Your task to perform on an android device: Show the shopping cart on newegg. Add macbook pro 15 inch to the cart on newegg Image 0: 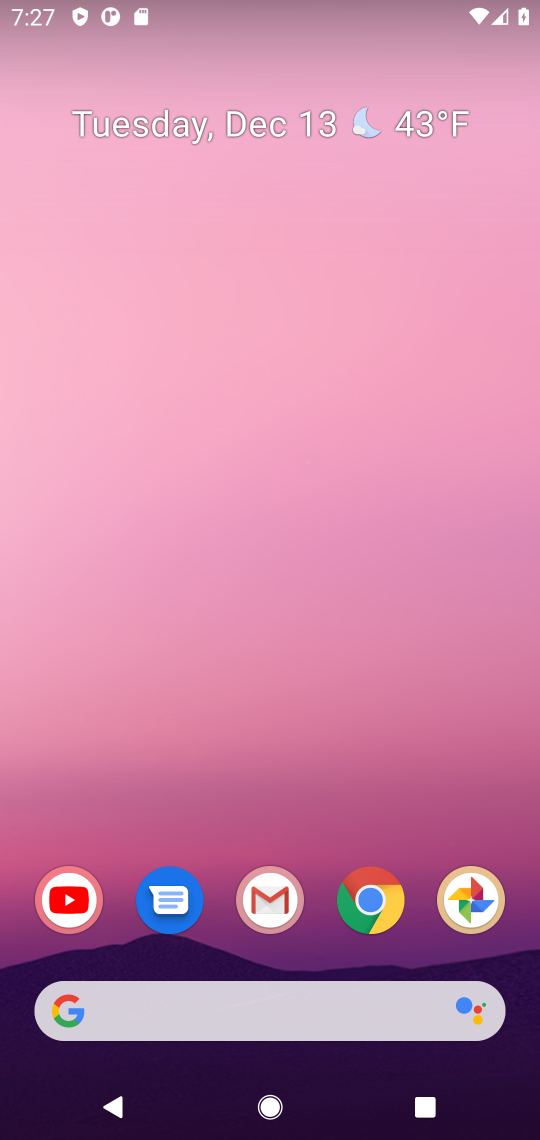
Step 0: click (367, 895)
Your task to perform on an android device: Show the shopping cart on newegg. Add macbook pro 15 inch to the cart on newegg Image 1: 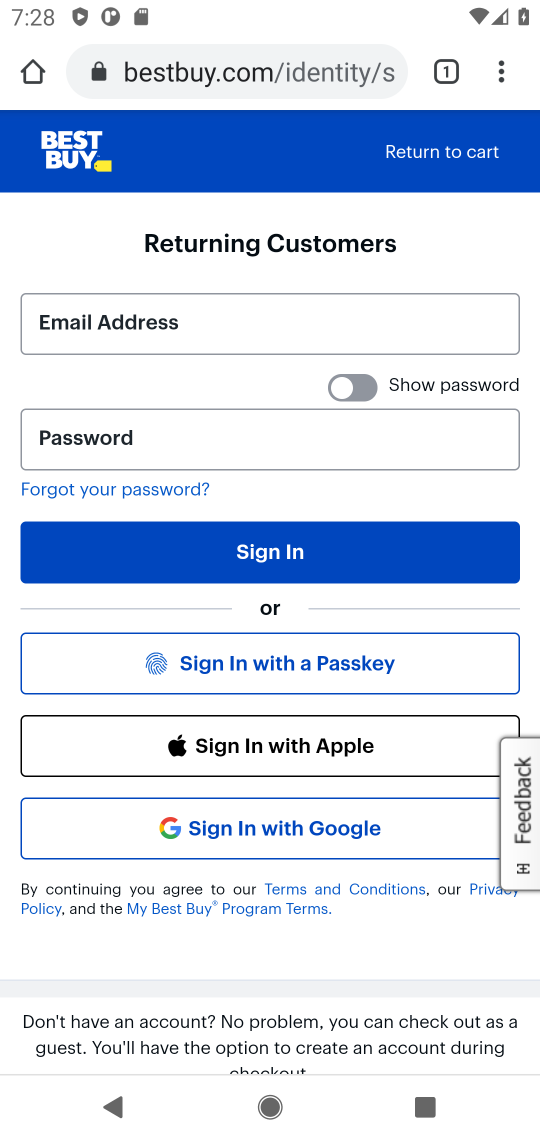
Step 1: click (298, 69)
Your task to perform on an android device: Show the shopping cart on newegg. Add macbook pro 15 inch to the cart on newegg Image 2: 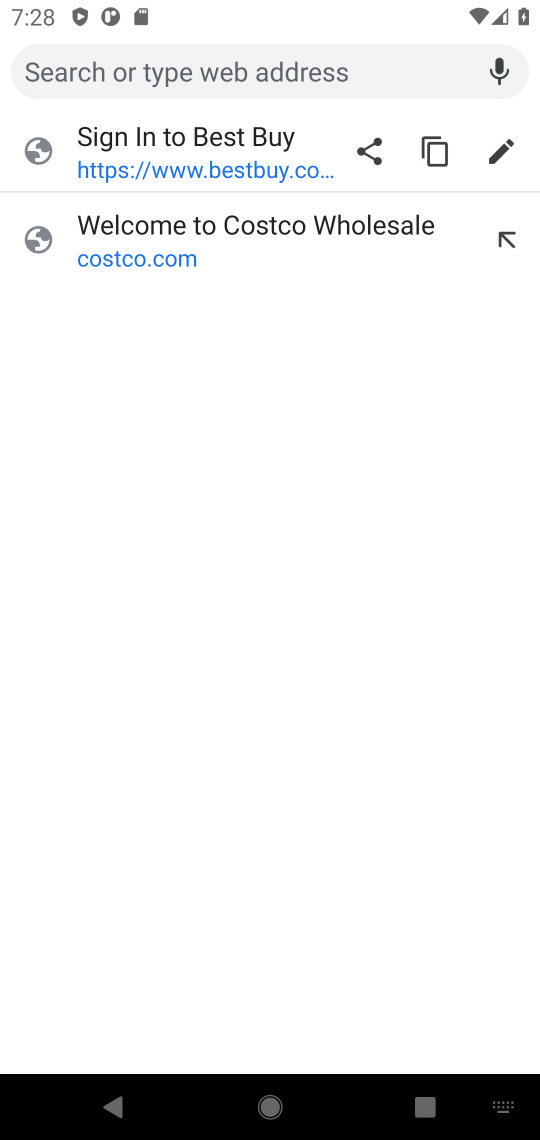
Step 2: type "newegg"
Your task to perform on an android device: Show the shopping cart on newegg. Add macbook pro 15 inch to the cart on newegg Image 3: 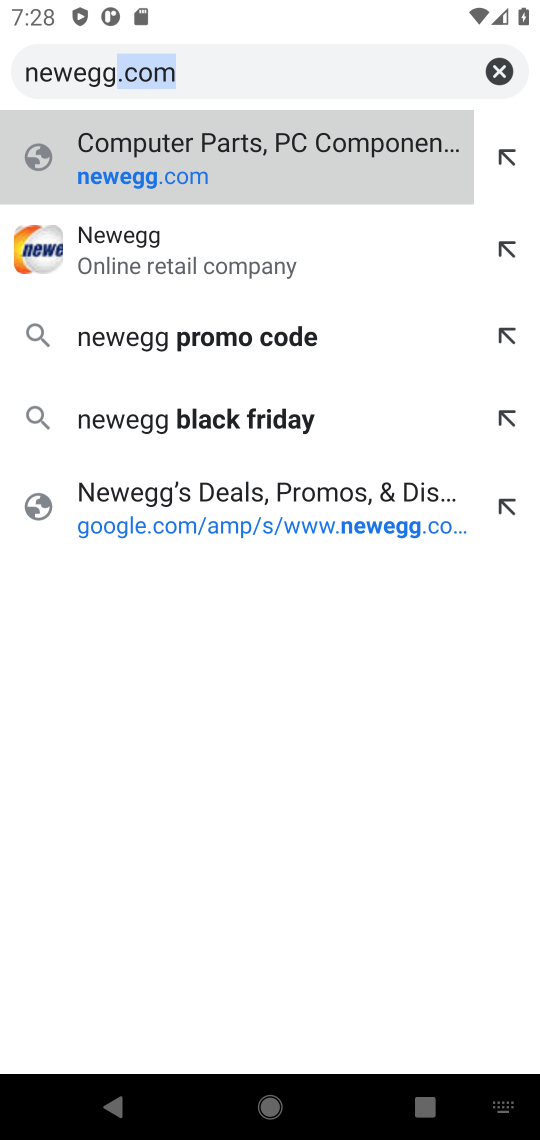
Step 3: click (222, 166)
Your task to perform on an android device: Show the shopping cart on newegg. Add macbook pro 15 inch to the cart on newegg Image 4: 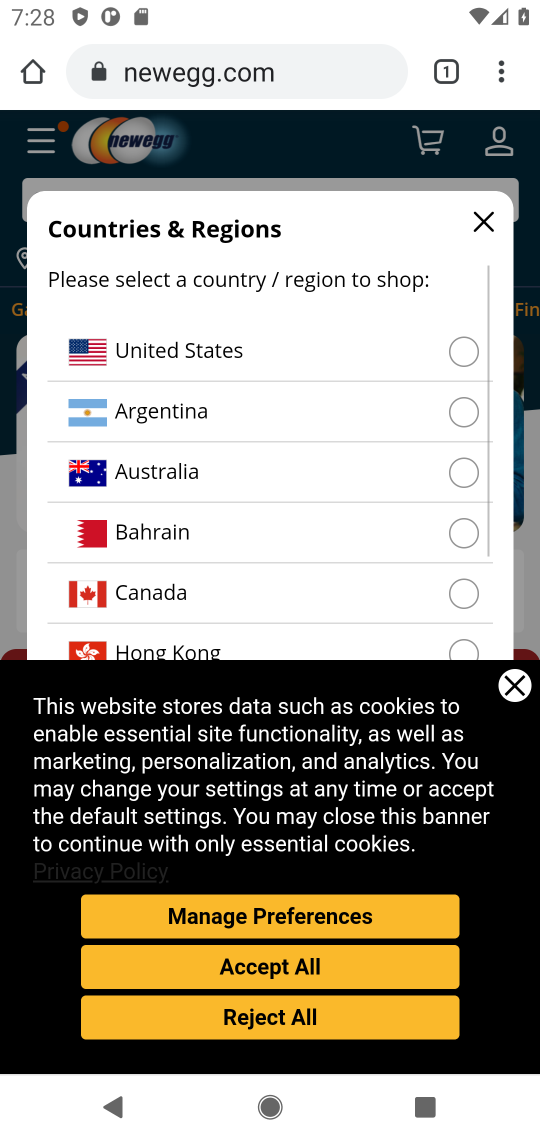
Step 4: click (308, 968)
Your task to perform on an android device: Show the shopping cart on newegg. Add macbook pro 15 inch to the cart on newegg Image 5: 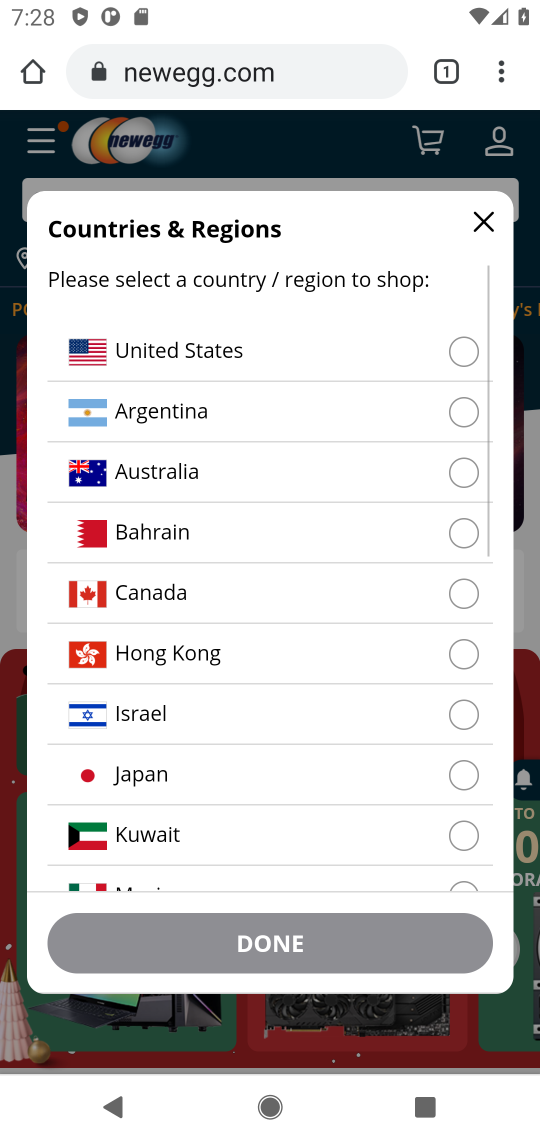
Step 5: click (390, 354)
Your task to perform on an android device: Show the shopping cart on newegg. Add macbook pro 15 inch to the cart on newegg Image 6: 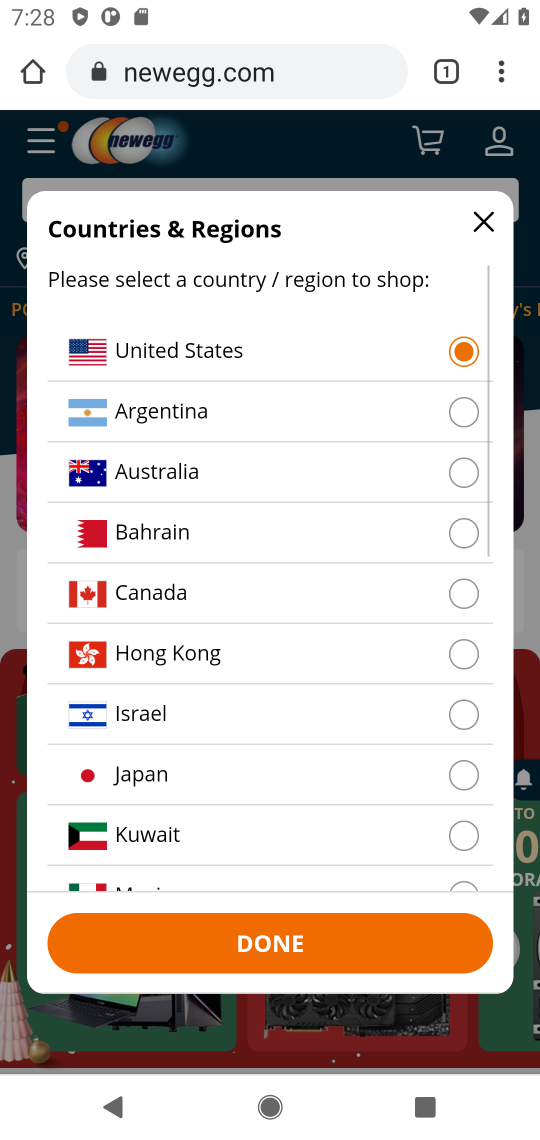
Step 6: click (378, 955)
Your task to perform on an android device: Show the shopping cart on newegg. Add macbook pro 15 inch to the cart on newegg Image 7: 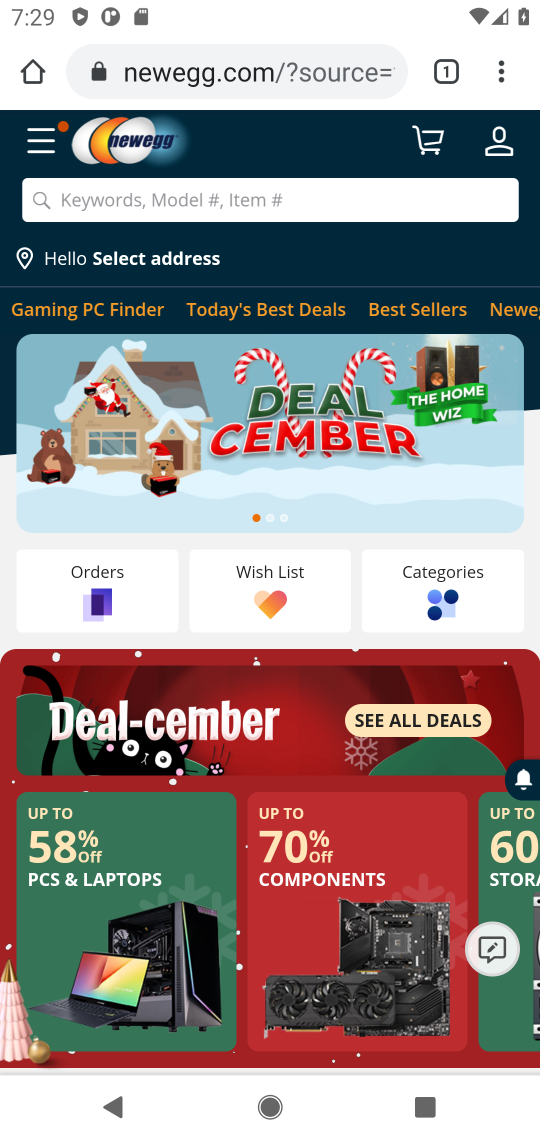
Step 7: click (399, 193)
Your task to perform on an android device: Show the shopping cart on newegg. Add macbook pro 15 inch to the cart on newegg Image 8: 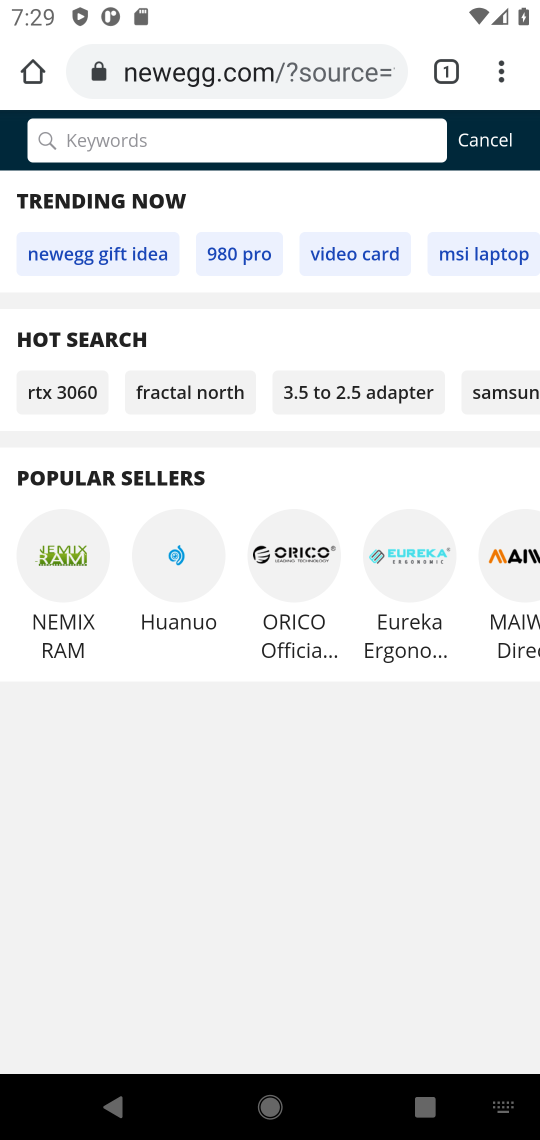
Step 8: type "macbook pro 15"
Your task to perform on an android device: Show the shopping cart on newegg. Add macbook pro 15 inch to the cart on newegg Image 9: 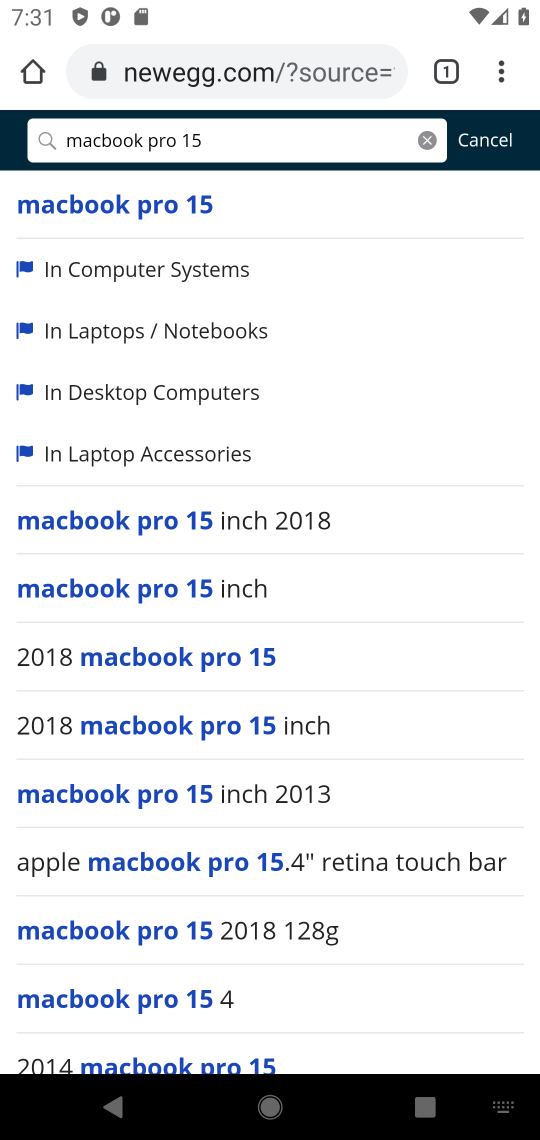
Step 9: click (157, 207)
Your task to perform on an android device: Show the shopping cart on newegg. Add macbook pro 15 inch to the cart on newegg Image 10: 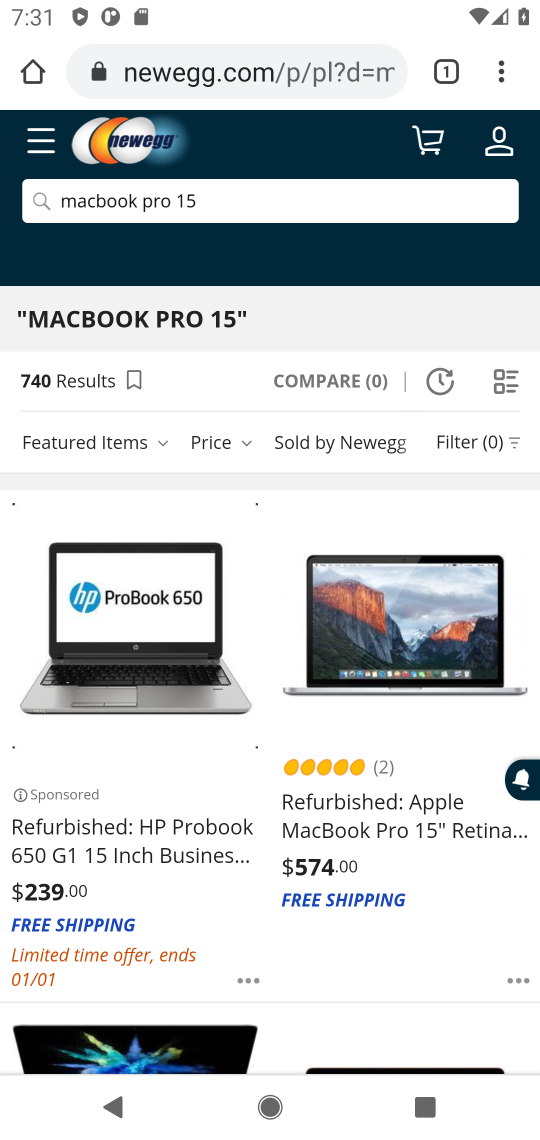
Step 10: click (172, 647)
Your task to perform on an android device: Show the shopping cart on newegg. Add macbook pro 15 inch to the cart on newegg Image 11: 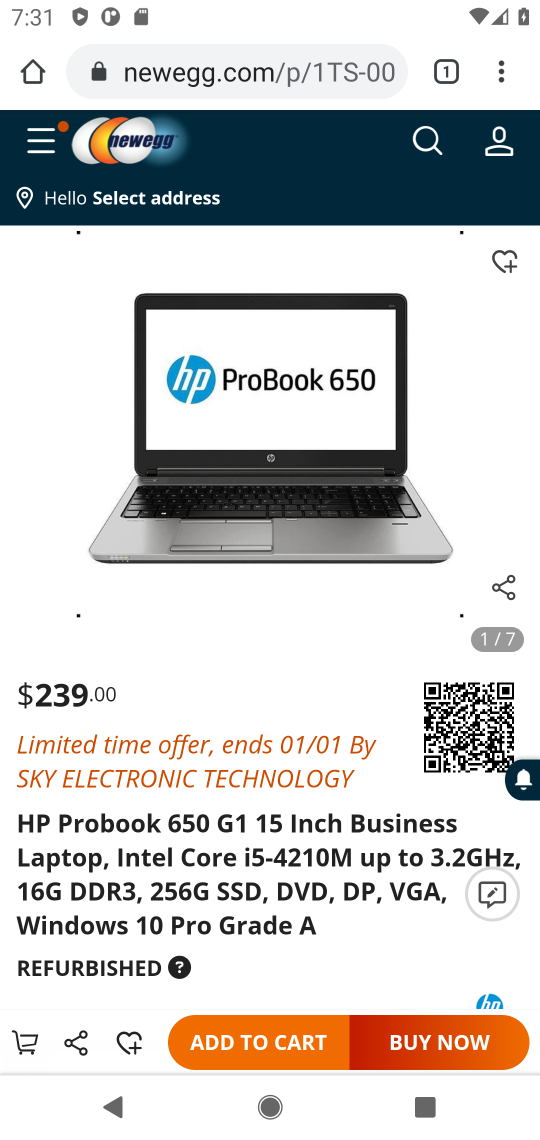
Step 11: click (267, 1035)
Your task to perform on an android device: Show the shopping cart on newegg. Add macbook pro 15 inch to the cart on newegg Image 12: 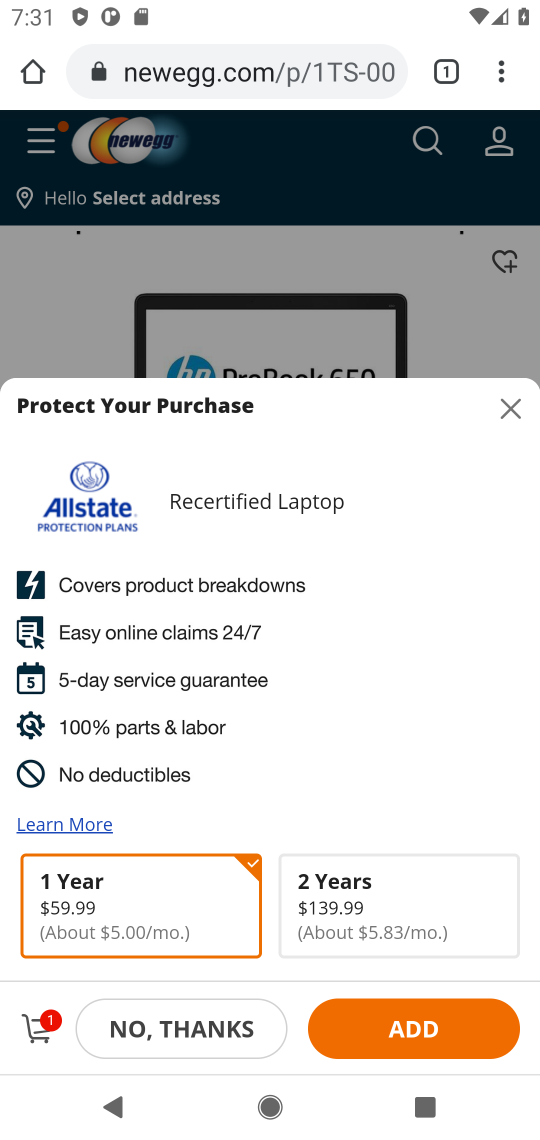
Step 12: task complete